Your task to perform on an android device: Open settings on Google Maps Image 0: 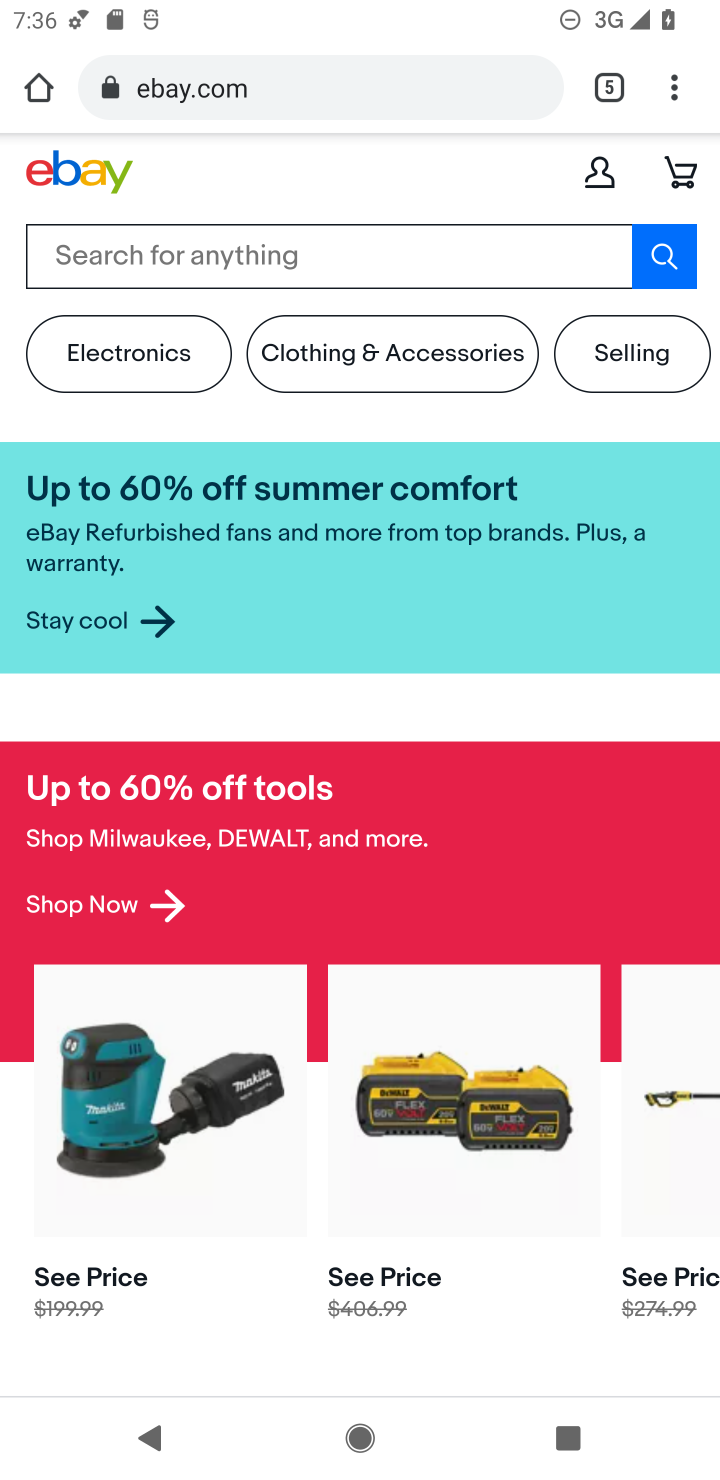
Step 0: press home button
Your task to perform on an android device: Open settings on Google Maps Image 1: 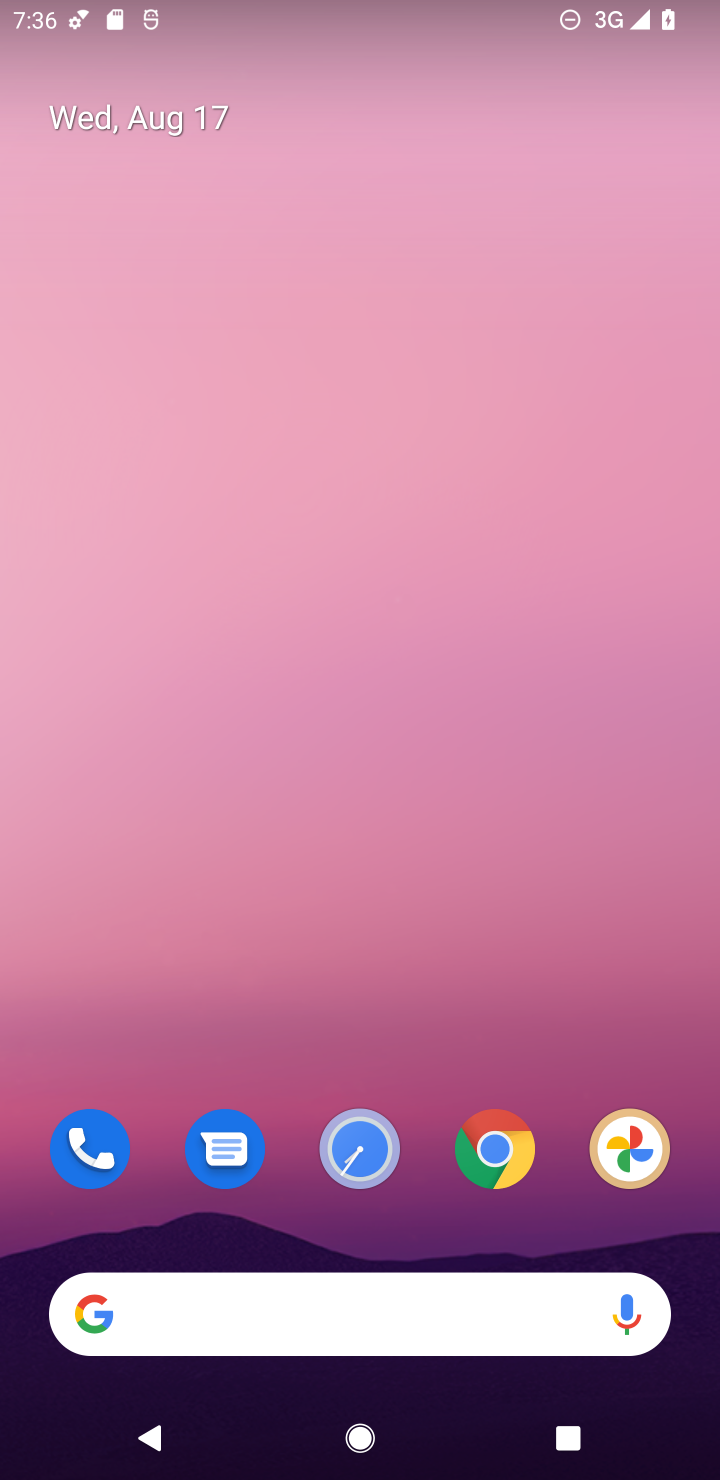
Step 1: drag from (437, 1215) to (294, 357)
Your task to perform on an android device: Open settings on Google Maps Image 2: 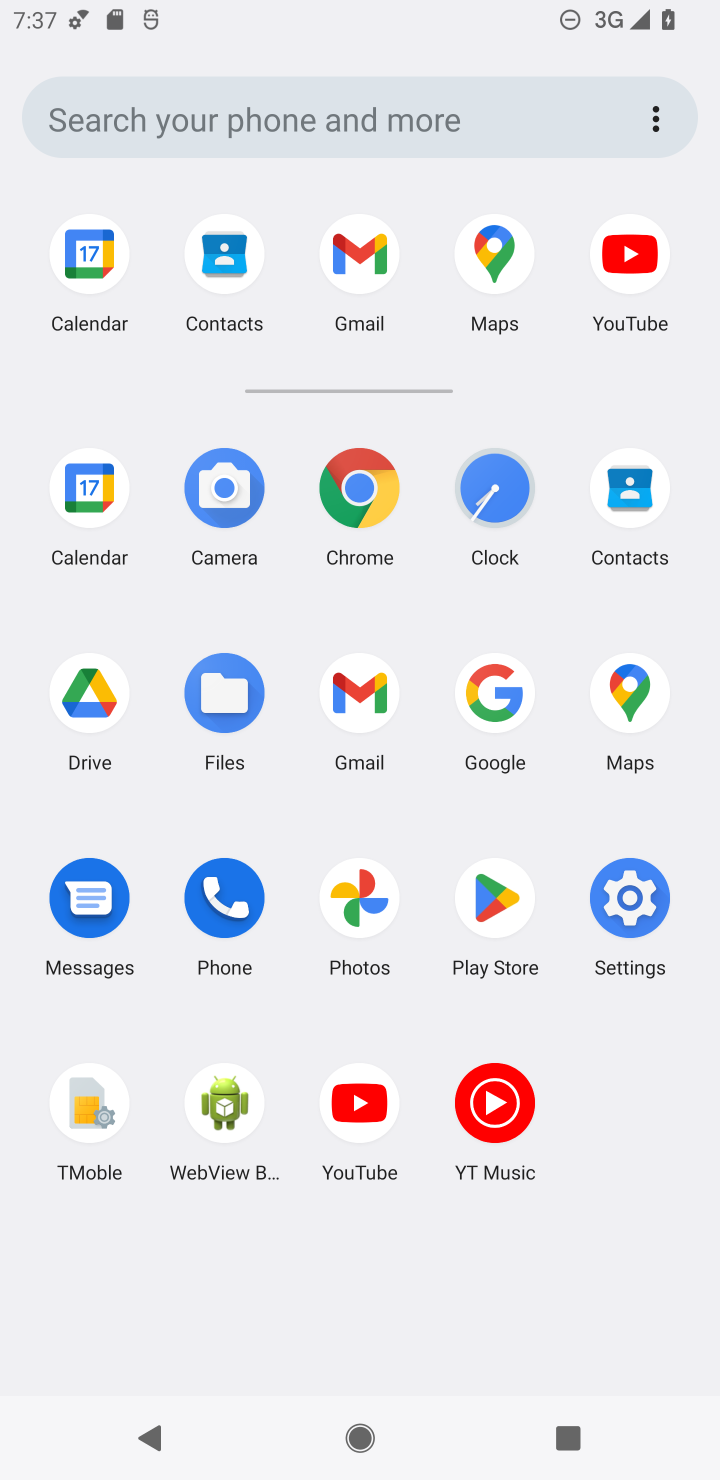
Step 2: click (493, 249)
Your task to perform on an android device: Open settings on Google Maps Image 3: 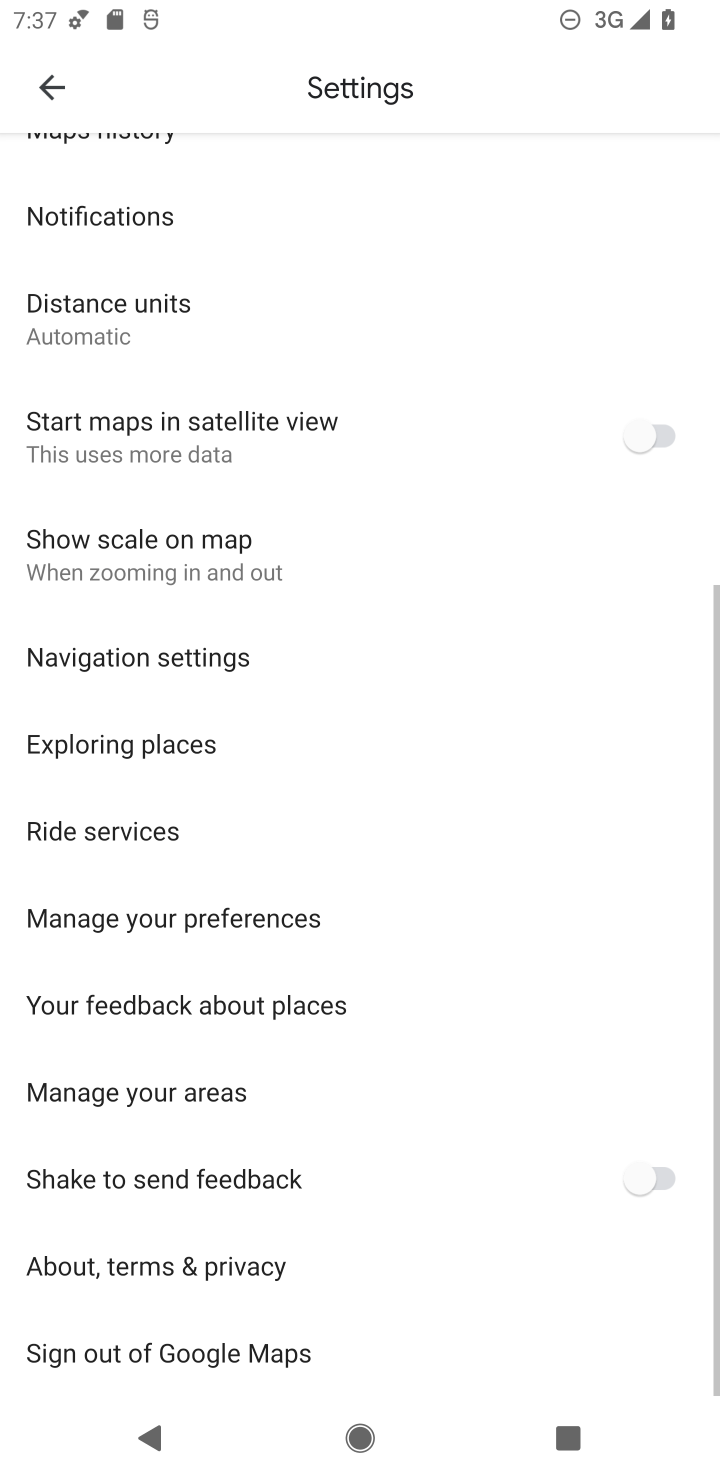
Step 3: task complete